Your task to perform on an android device: check the backup settings in the google photos Image 0: 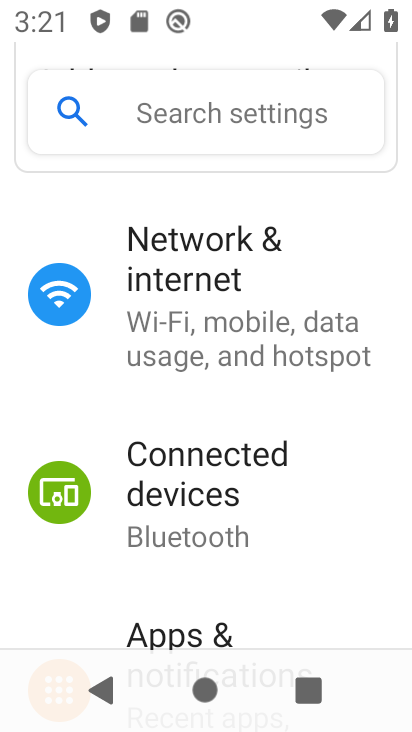
Step 0: press home button
Your task to perform on an android device: check the backup settings in the google photos Image 1: 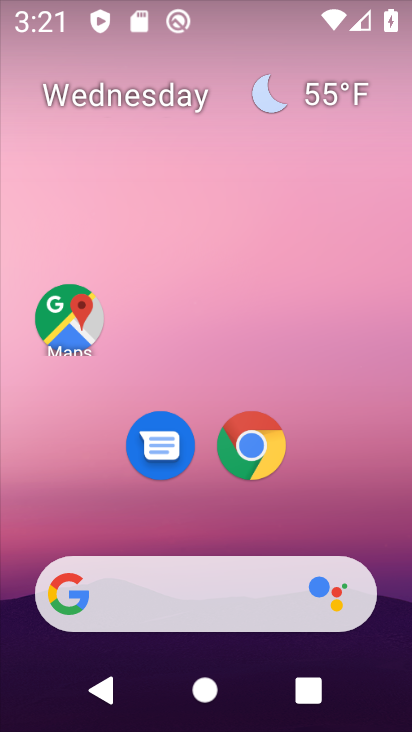
Step 1: drag from (330, 501) to (345, 235)
Your task to perform on an android device: check the backup settings in the google photos Image 2: 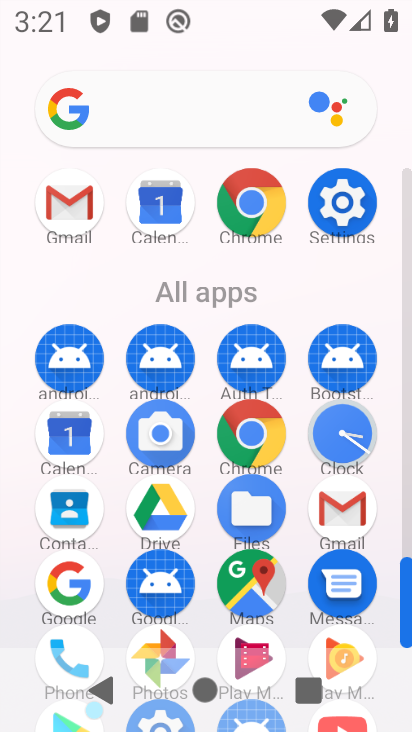
Step 2: drag from (292, 547) to (288, 339)
Your task to perform on an android device: check the backup settings in the google photos Image 3: 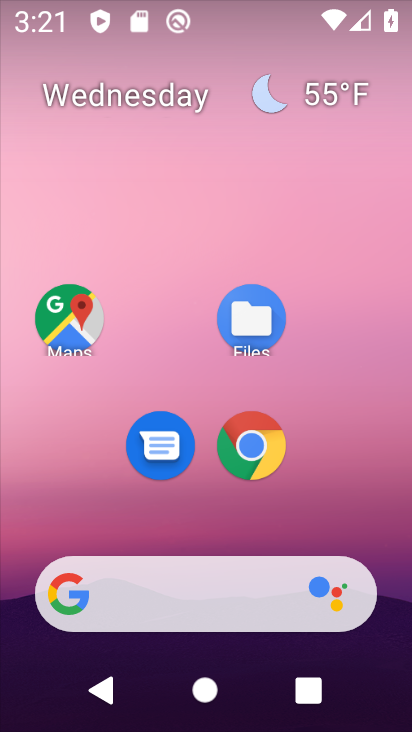
Step 3: drag from (315, 520) to (363, 10)
Your task to perform on an android device: check the backup settings in the google photos Image 4: 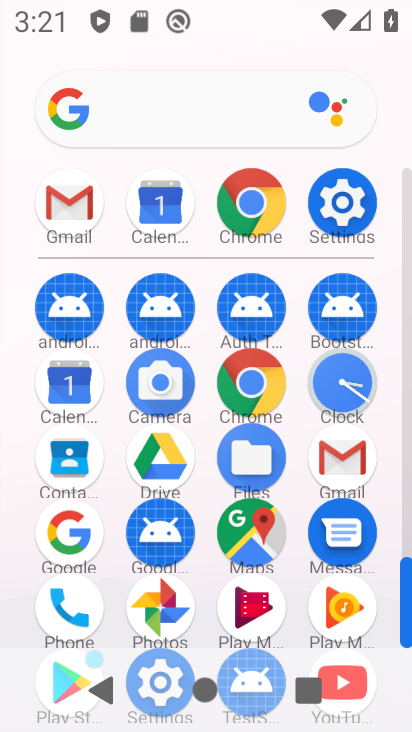
Step 4: click (152, 597)
Your task to perform on an android device: check the backup settings in the google photos Image 5: 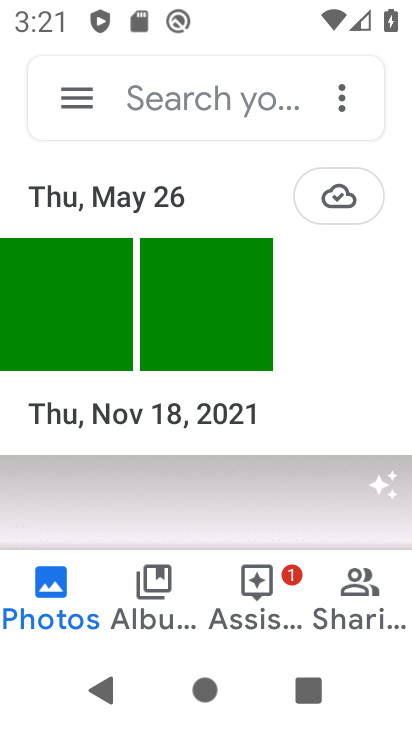
Step 5: click (59, 92)
Your task to perform on an android device: check the backup settings in the google photos Image 6: 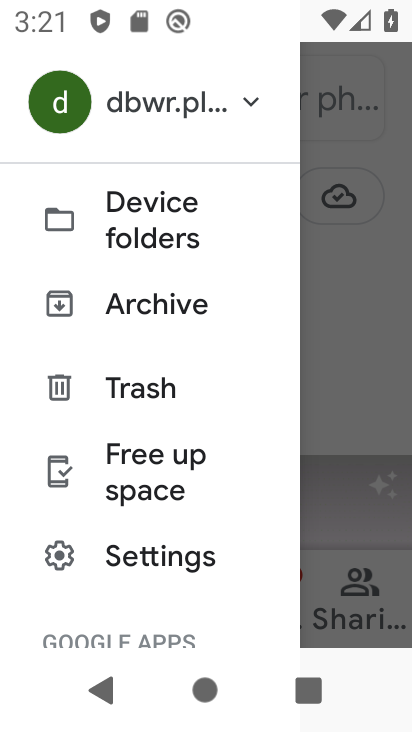
Step 6: click (116, 542)
Your task to perform on an android device: check the backup settings in the google photos Image 7: 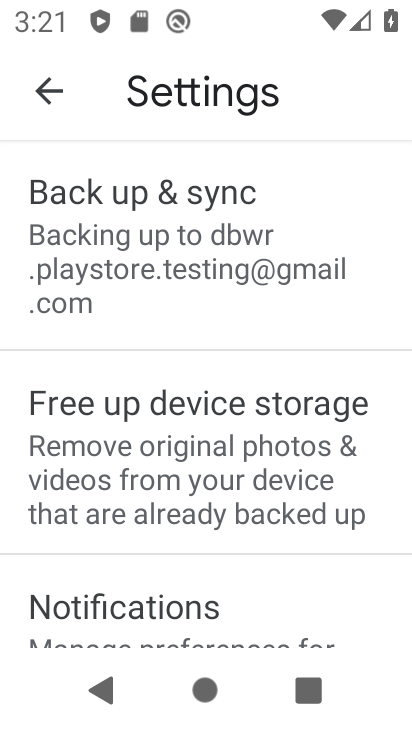
Step 7: click (215, 286)
Your task to perform on an android device: check the backup settings in the google photos Image 8: 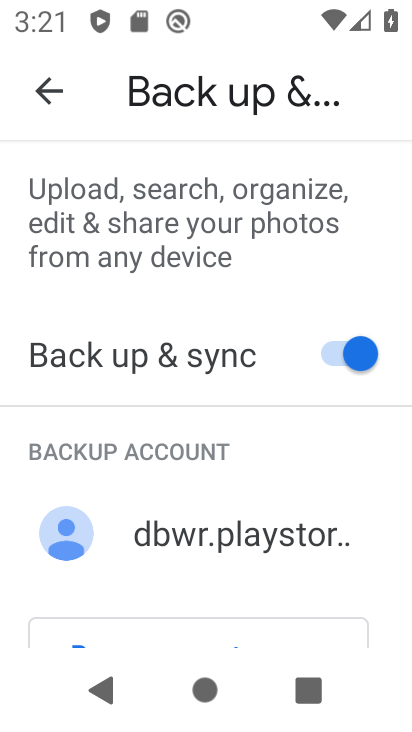
Step 8: task complete